Your task to perform on an android device: turn on the 12-hour format for clock Image 0: 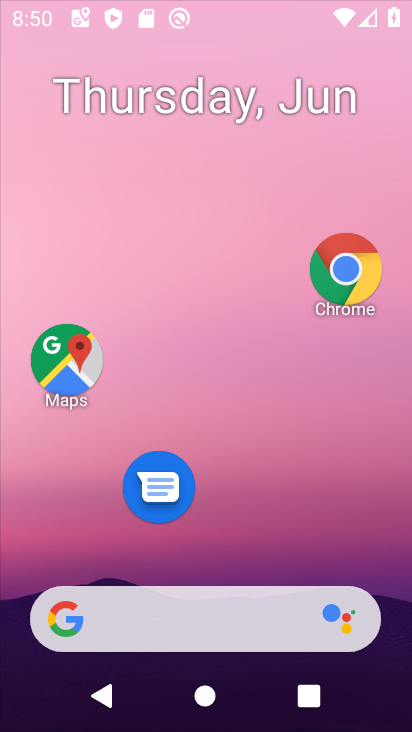
Step 0: click (258, 97)
Your task to perform on an android device: turn on the 12-hour format for clock Image 1: 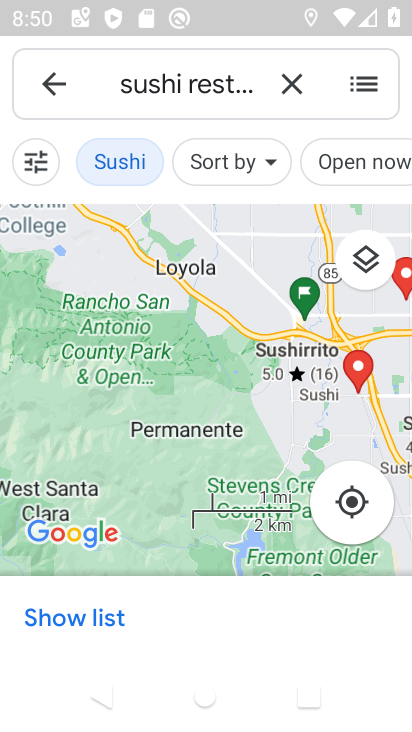
Step 1: press home button
Your task to perform on an android device: turn on the 12-hour format for clock Image 2: 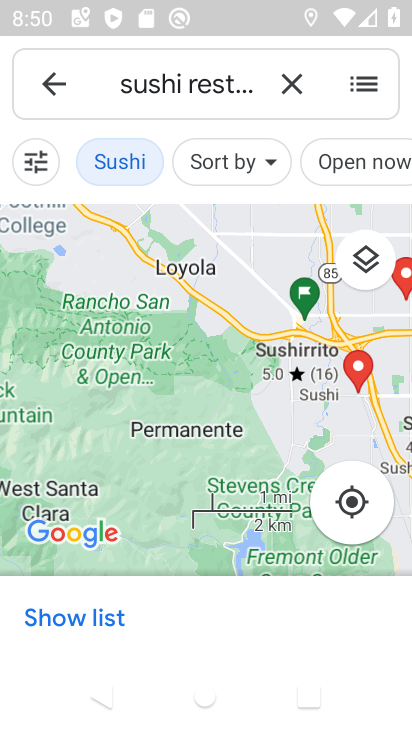
Step 2: drag from (192, 492) to (290, 116)
Your task to perform on an android device: turn on the 12-hour format for clock Image 3: 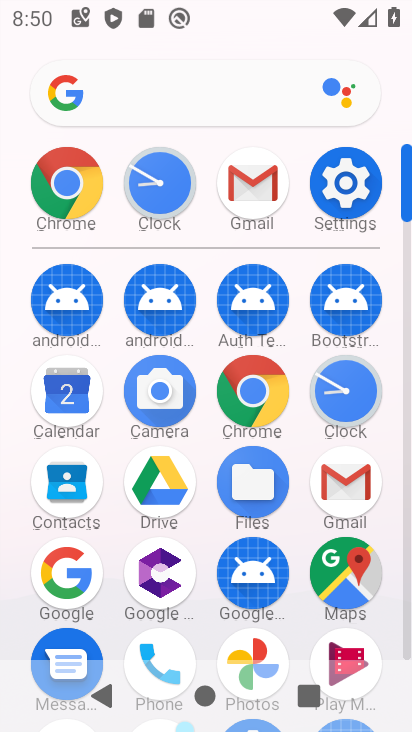
Step 3: drag from (193, 643) to (168, 192)
Your task to perform on an android device: turn on the 12-hour format for clock Image 4: 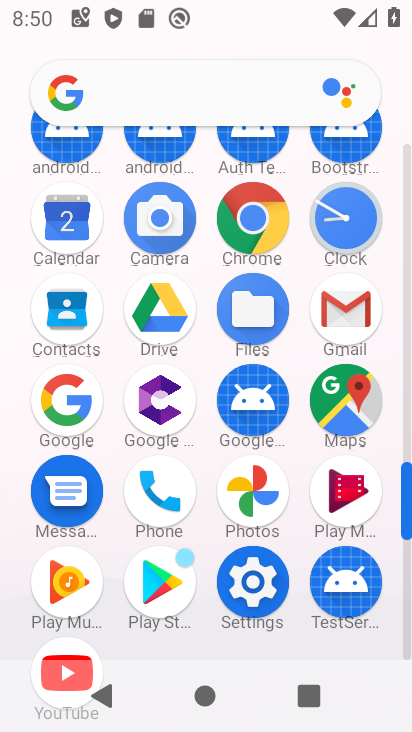
Step 4: click (338, 225)
Your task to perform on an android device: turn on the 12-hour format for clock Image 5: 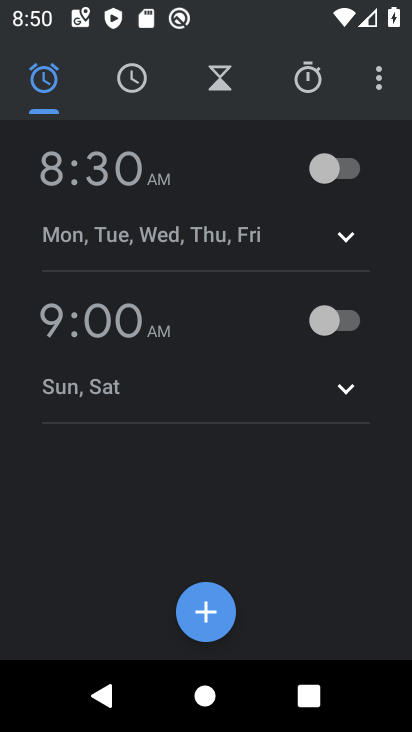
Step 5: click (374, 85)
Your task to perform on an android device: turn on the 12-hour format for clock Image 6: 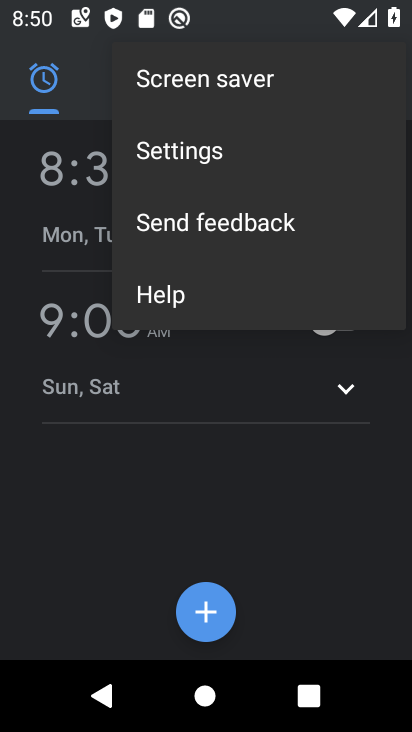
Step 6: click (224, 157)
Your task to perform on an android device: turn on the 12-hour format for clock Image 7: 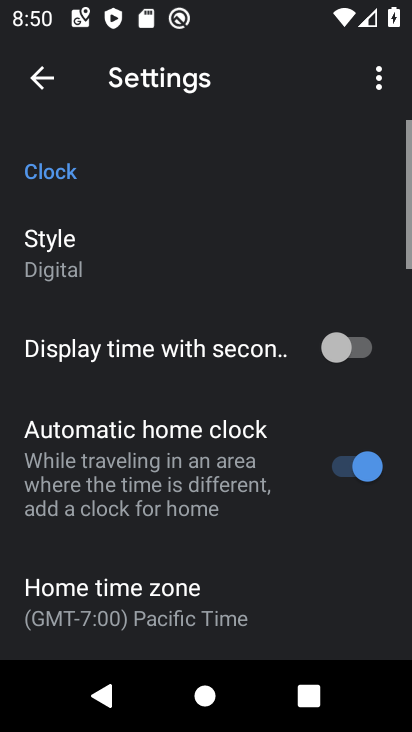
Step 7: drag from (164, 464) to (214, 73)
Your task to perform on an android device: turn on the 12-hour format for clock Image 8: 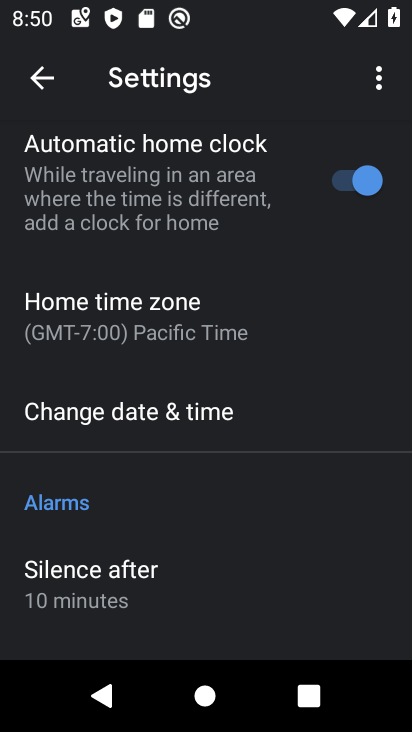
Step 8: click (148, 435)
Your task to perform on an android device: turn on the 12-hour format for clock Image 9: 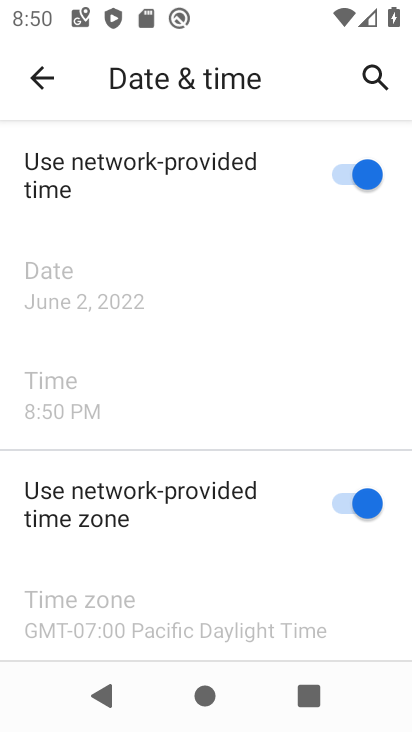
Step 9: task complete